Your task to perform on an android device: move an email to a new category in the gmail app Image 0: 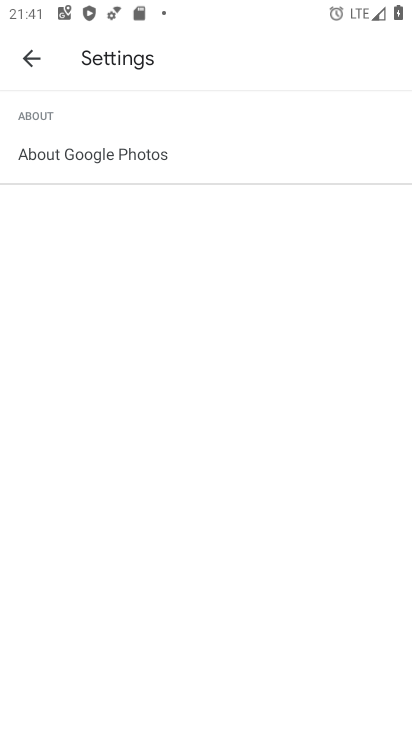
Step 0: press home button
Your task to perform on an android device: move an email to a new category in the gmail app Image 1: 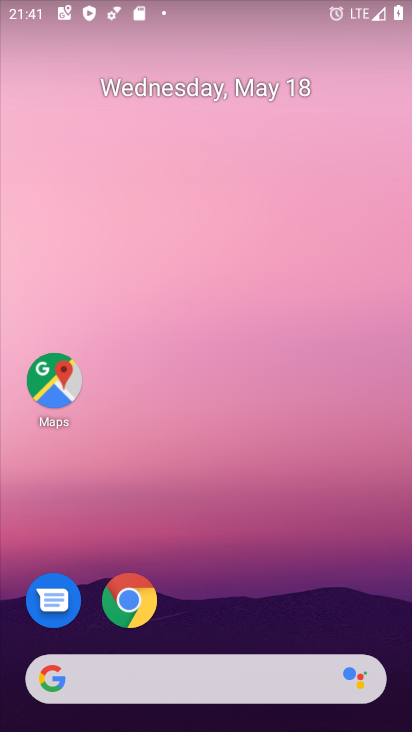
Step 1: drag from (220, 625) to (315, 67)
Your task to perform on an android device: move an email to a new category in the gmail app Image 2: 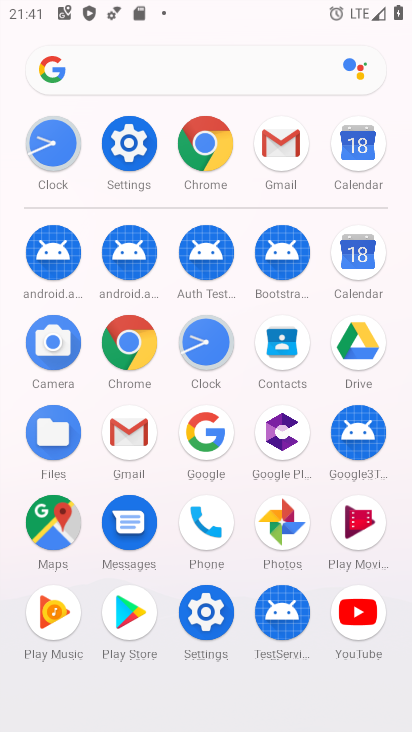
Step 2: click (280, 126)
Your task to perform on an android device: move an email to a new category in the gmail app Image 3: 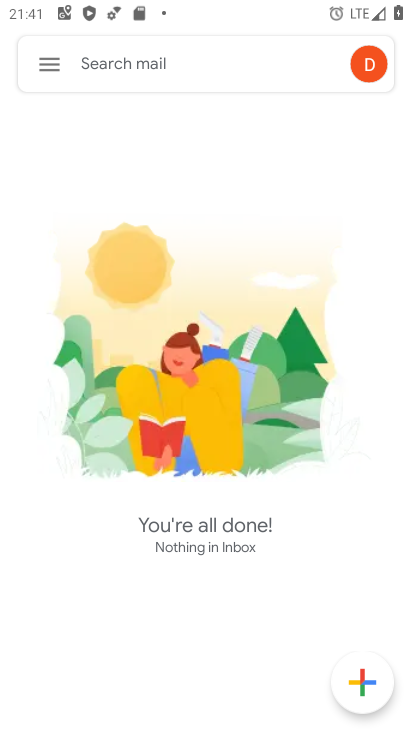
Step 3: click (32, 56)
Your task to perform on an android device: move an email to a new category in the gmail app Image 4: 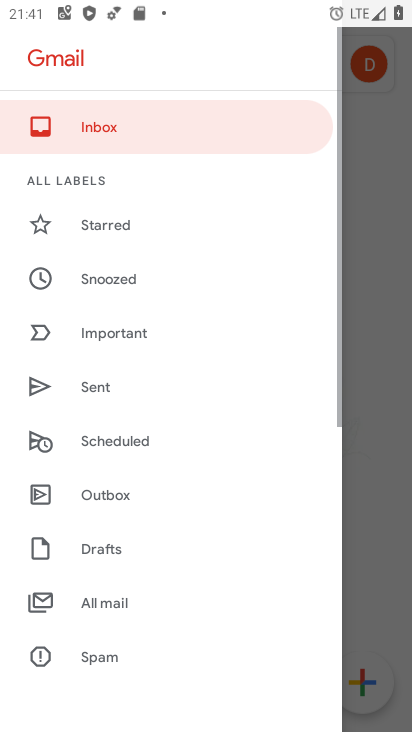
Step 4: click (125, 618)
Your task to perform on an android device: move an email to a new category in the gmail app Image 5: 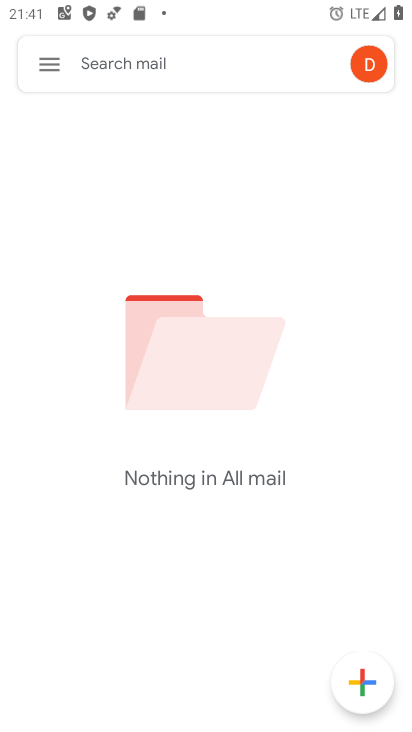
Step 5: task complete